Your task to perform on an android device: remove spam from my inbox in the gmail app Image 0: 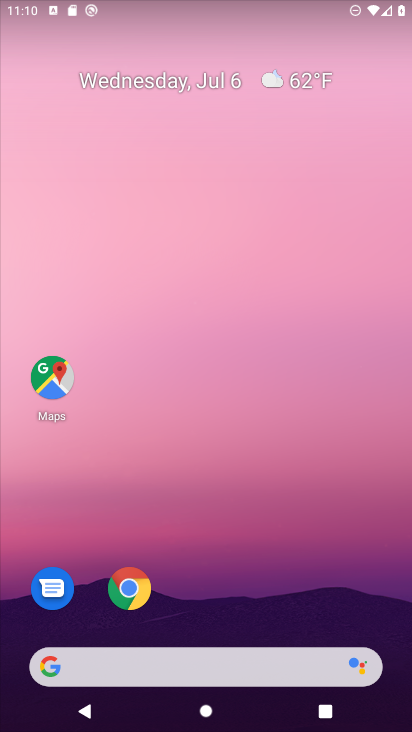
Step 0: drag from (380, 612) to (339, 177)
Your task to perform on an android device: remove spam from my inbox in the gmail app Image 1: 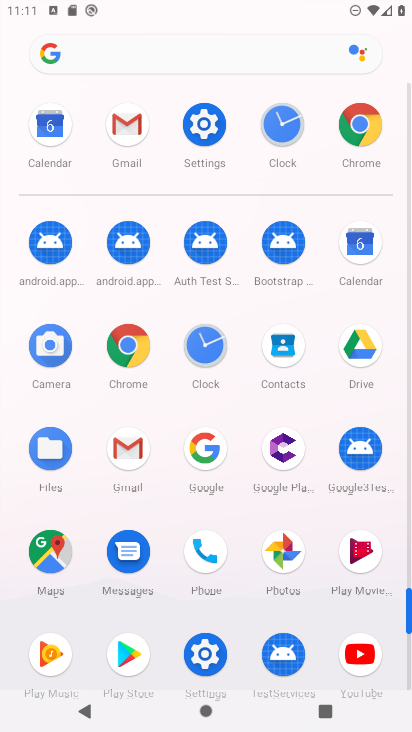
Step 1: click (125, 446)
Your task to perform on an android device: remove spam from my inbox in the gmail app Image 2: 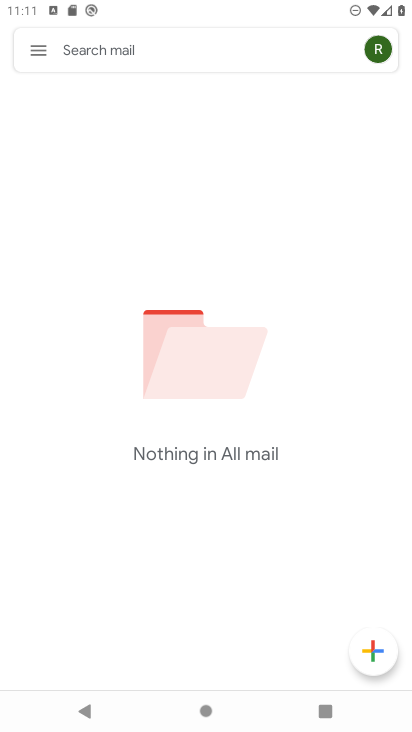
Step 2: click (35, 47)
Your task to perform on an android device: remove spam from my inbox in the gmail app Image 3: 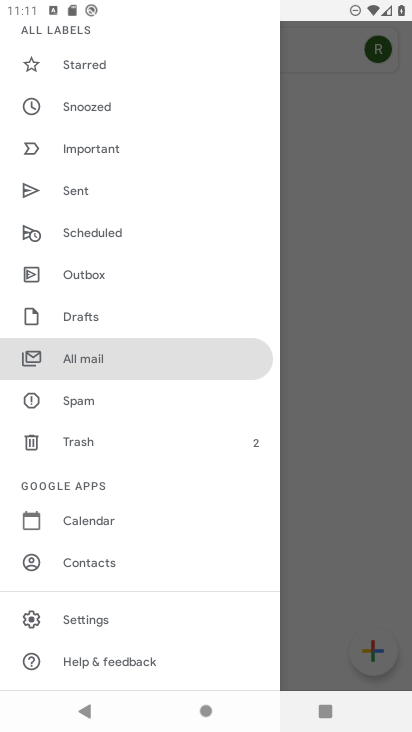
Step 3: click (77, 405)
Your task to perform on an android device: remove spam from my inbox in the gmail app Image 4: 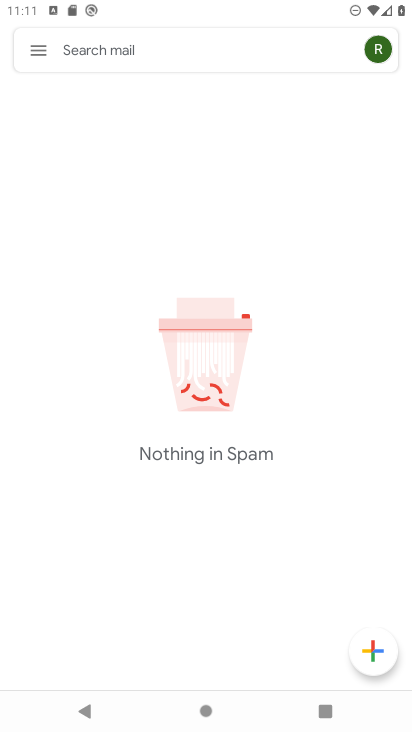
Step 4: task complete